Your task to perform on an android device: delete browsing data in the chrome app Image 0: 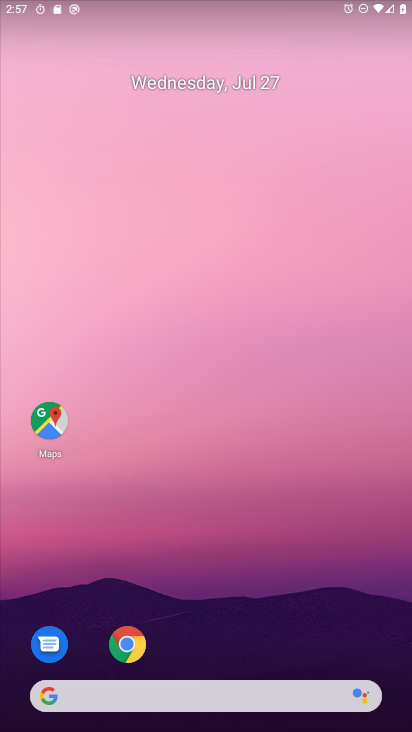
Step 0: drag from (222, 492) to (259, 194)
Your task to perform on an android device: delete browsing data in the chrome app Image 1: 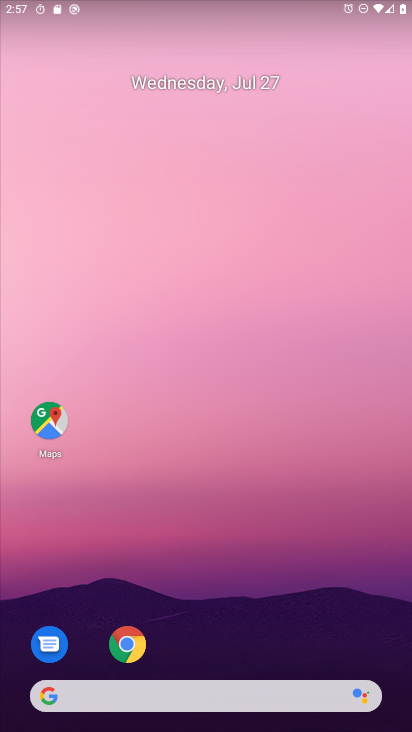
Step 1: drag from (230, 484) to (285, 208)
Your task to perform on an android device: delete browsing data in the chrome app Image 2: 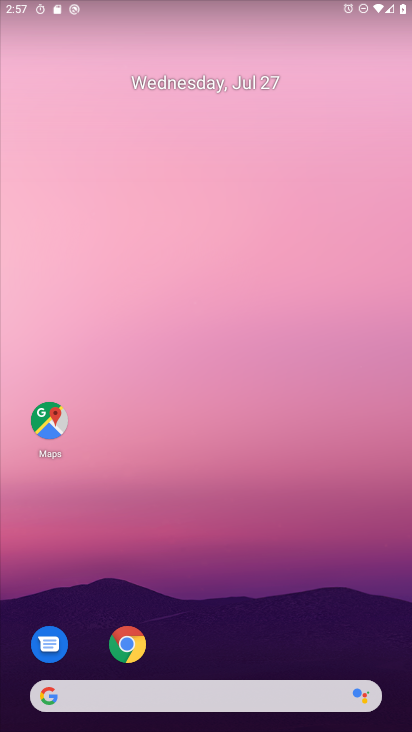
Step 2: drag from (189, 618) to (210, 320)
Your task to perform on an android device: delete browsing data in the chrome app Image 3: 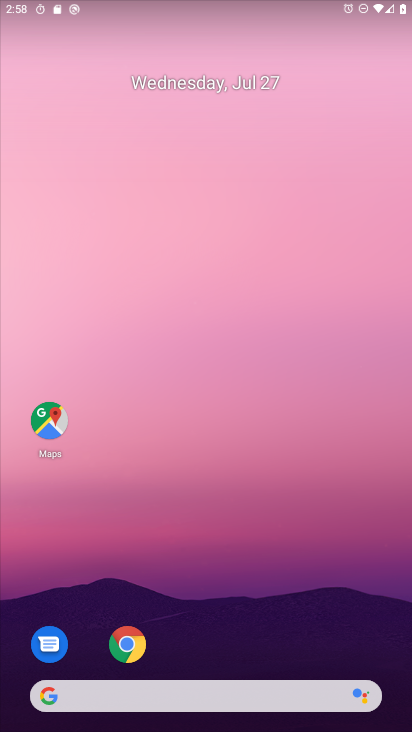
Step 3: click (125, 644)
Your task to perform on an android device: delete browsing data in the chrome app Image 4: 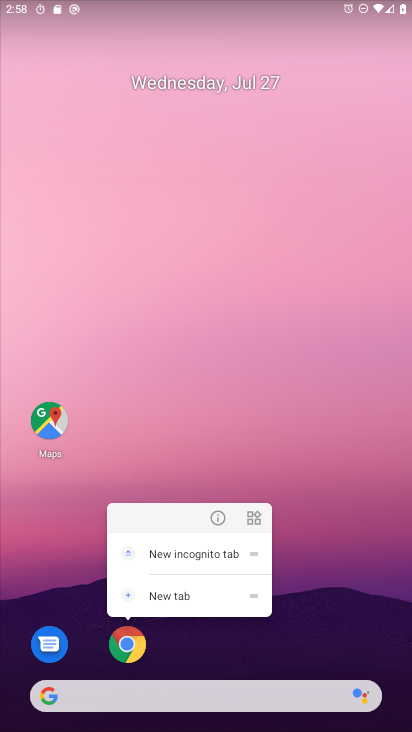
Step 4: click (220, 519)
Your task to perform on an android device: delete browsing data in the chrome app Image 5: 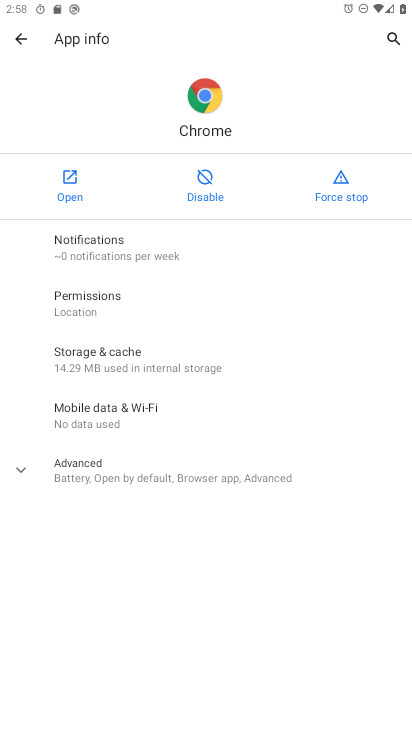
Step 5: click (66, 173)
Your task to perform on an android device: delete browsing data in the chrome app Image 6: 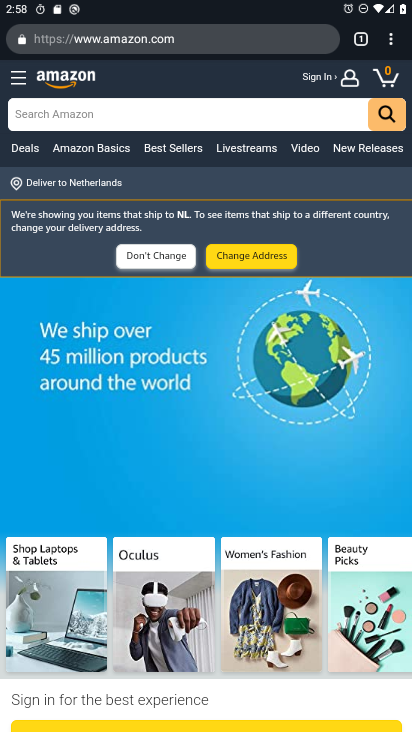
Step 6: drag from (396, 48) to (273, 264)
Your task to perform on an android device: delete browsing data in the chrome app Image 7: 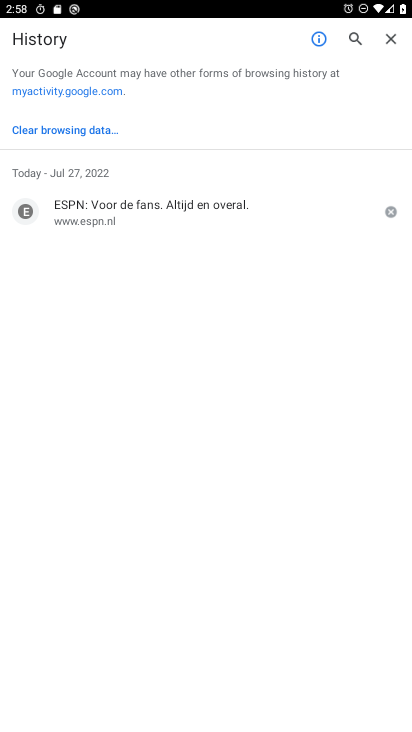
Step 7: click (92, 127)
Your task to perform on an android device: delete browsing data in the chrome app Image 8: 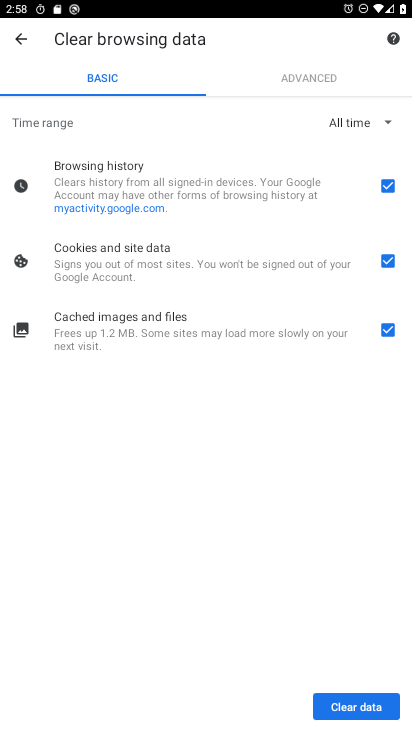
Step 8: click (343, 710)
Your task to perform on an android device: delete browsing data in the chrome app Image 9: 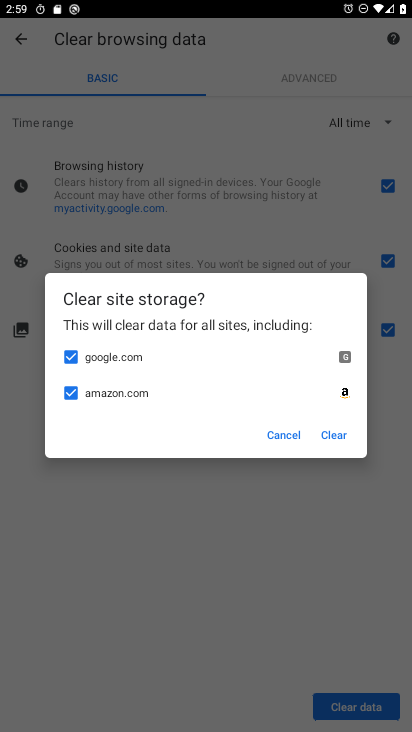
Step 9: click (332, 428)
Your task to perform on an android device: delete browsing data in the chrome app Image 10: 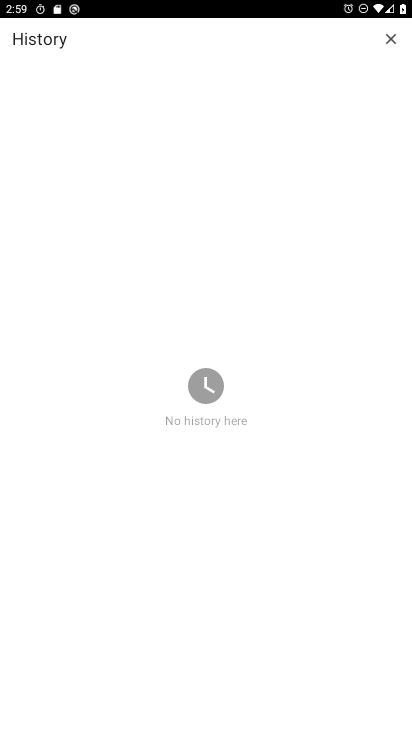
Step 10: click (178, 342)
Your task to perform on an android device: delete browsing data in the chrome app Image 11: 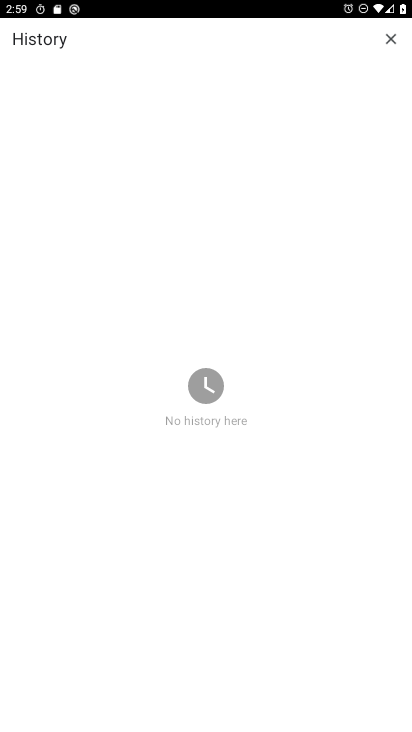
Step 11: task complete